Your task to perform on an android device: open a bookmark in the chrome app Image 0: 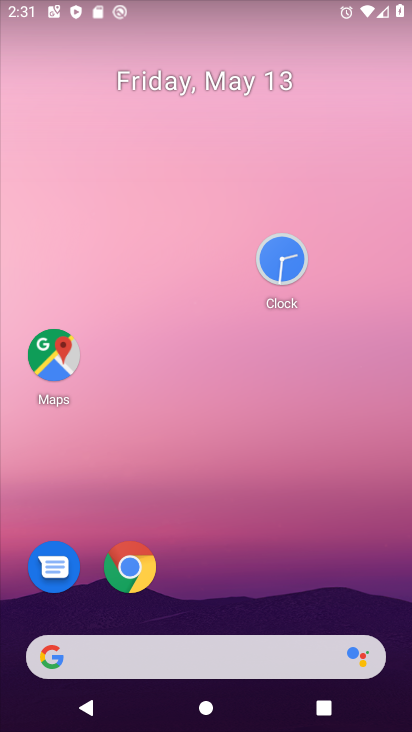
Step 0: click (148, 563)
Your task to perform on an android device: open a bookmark in the chrome app Image 1: 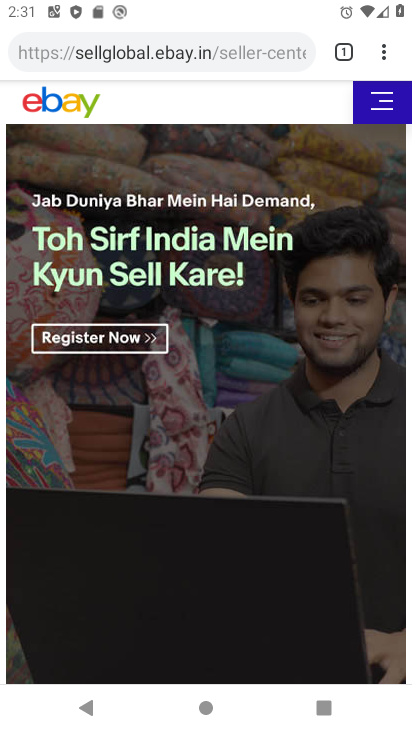
Step 1: click (379, 60)
Your task to perform on an android device: open a bookmark in the chrome app Image 2: 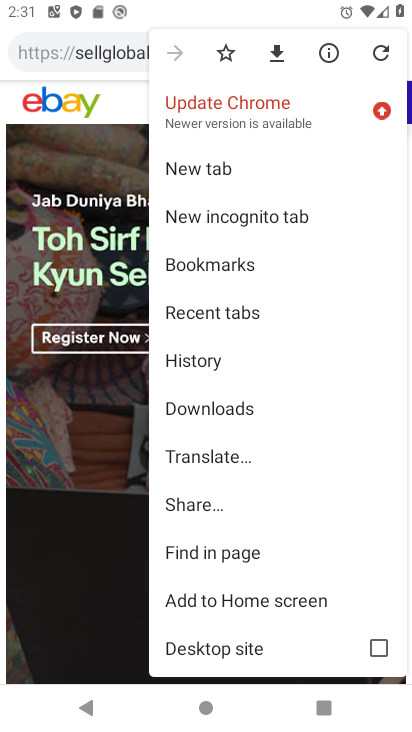
Step 2: click (180, 283)
Your task to perform on an android device: open a bookmark in the chrome app Image 3: 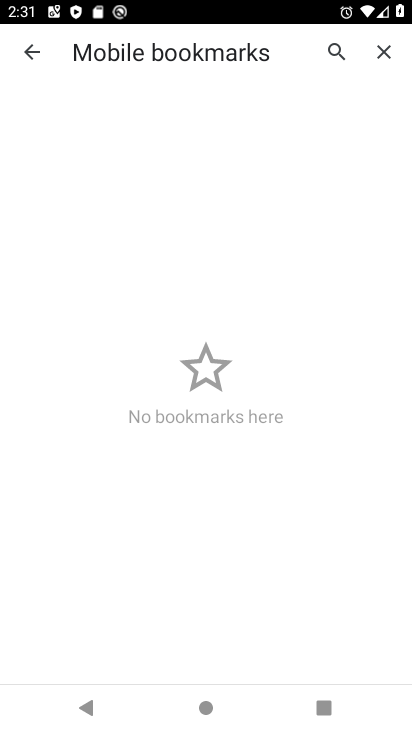
Step 3: task complete